Your task to perform on an android device: turn off smart reply in the gmail app Image 0: 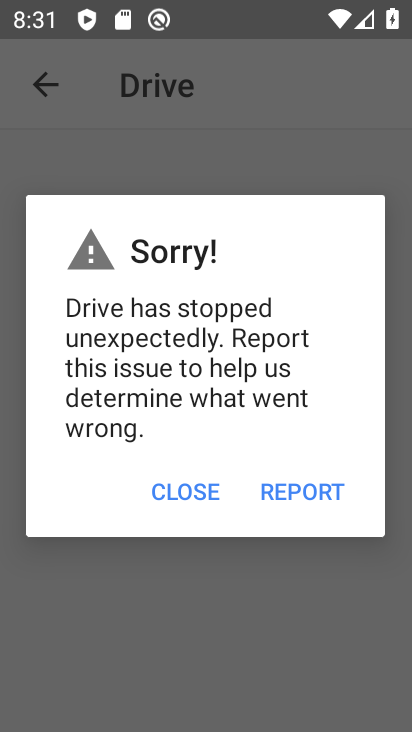
Step 0: press home button
Your task to perform on an android device: turn off smart reply in the gmail app Image 1: 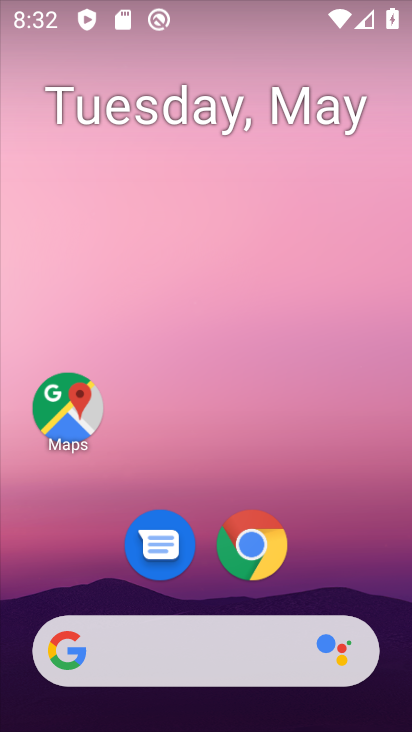
Step 1: drag from (376, 533) to (366, 200)
Your task to perform on an android device: turn off smart reply in the gmail app Image 2: 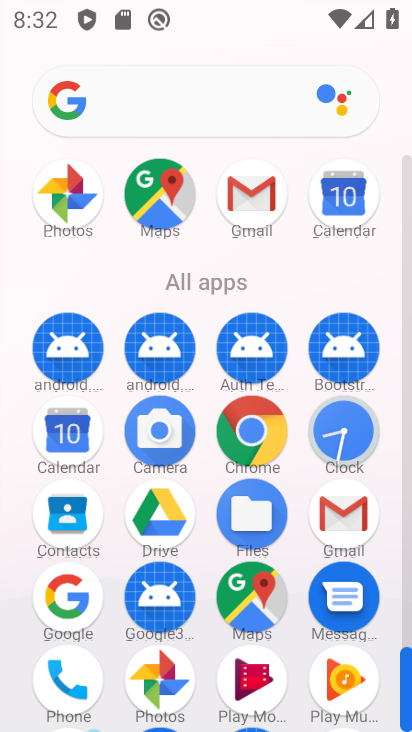
Step 2: click (351, 525)
Your task to perform on an android device: turn off smart reply in the gmail app Image 3: 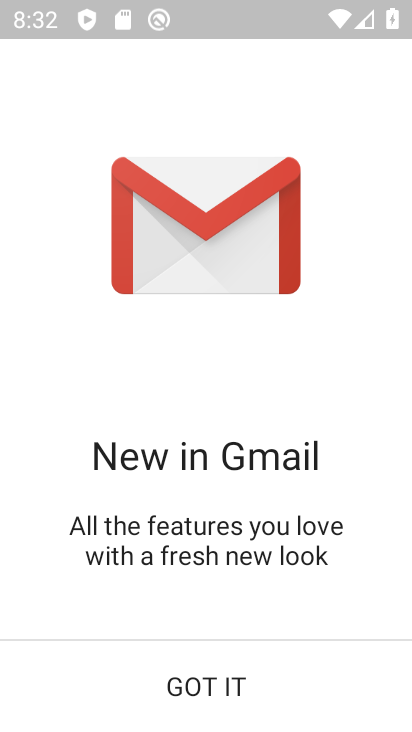
Step 3: click (208, 700)
Your task to perform on an android device: turn off smart reply in the gmail app Image 4: 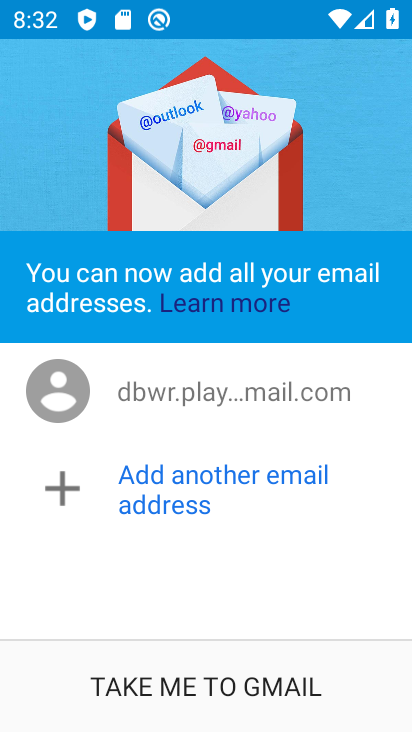
Step 4: click (210, 694)
Your task to perform on an android device: turn off smart reply in the gmail app Image 5: 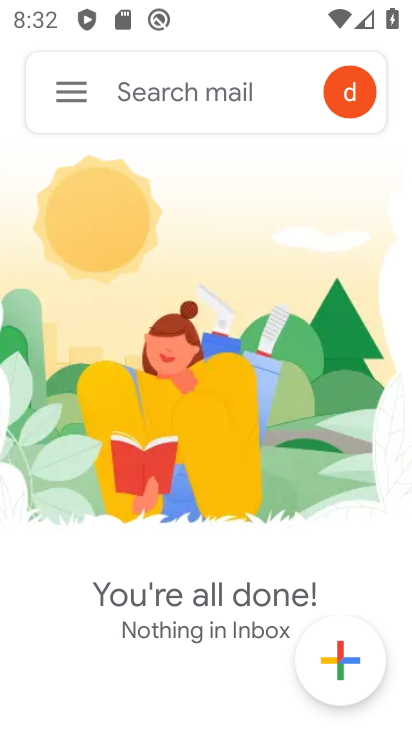
Step 5: click (90, 88)
Your task to perform on an android device: turn off smart reply in the gmail app Image 6: 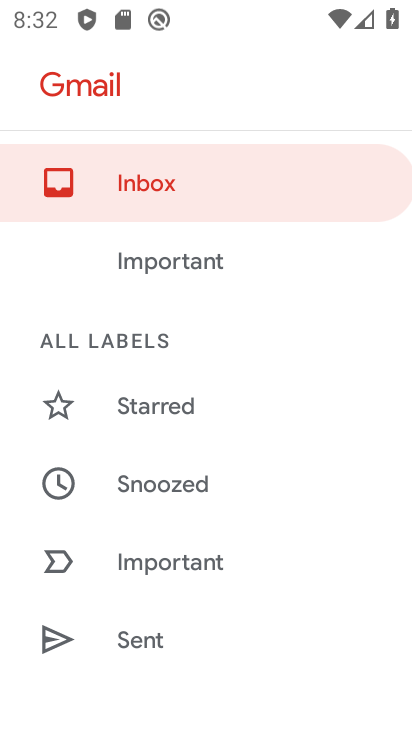
Step 6: drag from (228, 653) to (233, 233)
Your task to perform on an android device: turn off smart reply in the gmail app Image 7: 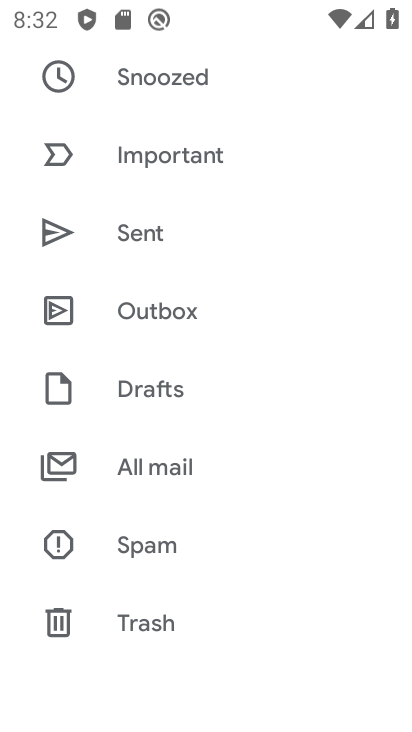
Step 7: drag from (243, 613) to (264, 247)
Your task to perform on an android device: turn off smart reply in the gmail app Image 8: 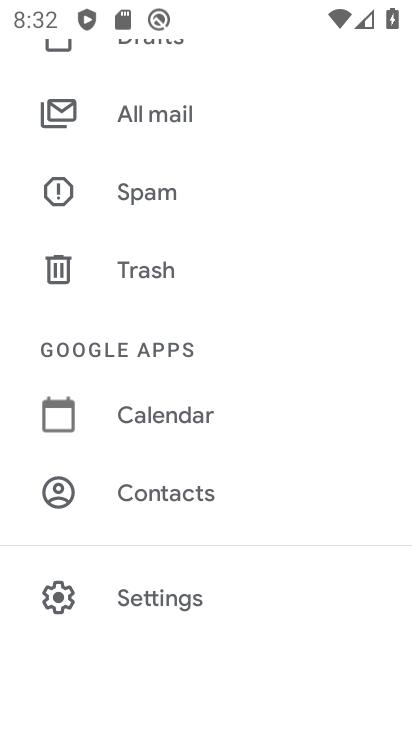
Step 8: click (173, 594)
Your task to perform on an android device: turn off smart reply in the gmail app Image 9: 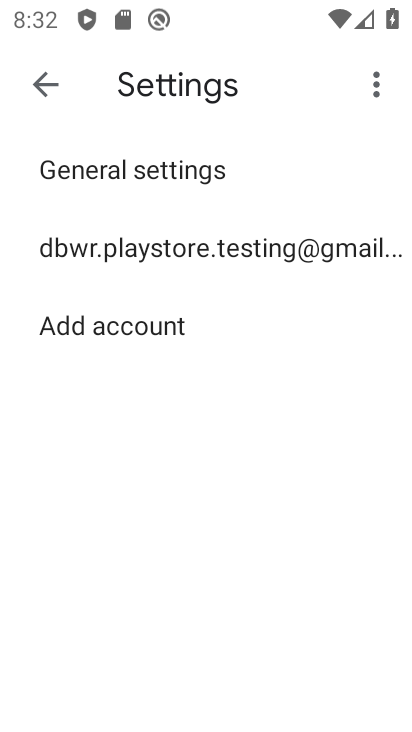
Step 9: click (250, 236)
Your task to perform on an android device: turn off smart reply in the gmail app Image 10: 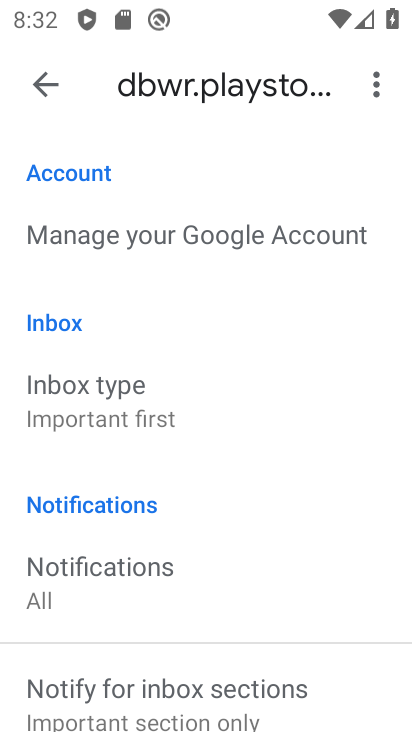
Step 10: drag from (238, 618) to (266, 225)
Your task to perform on an android device: turn off smart reply in the gmail app Image 11: 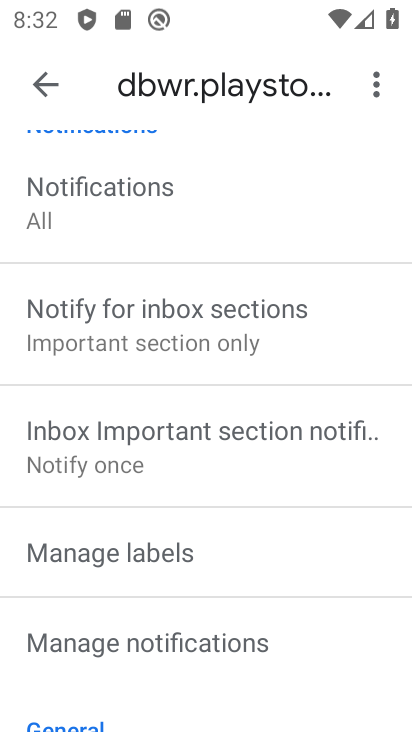
Step 11: drag from (284, 619) to (275, 217)
Your task to perform on an android device: turn off smart reply in the gmail app Image 12: 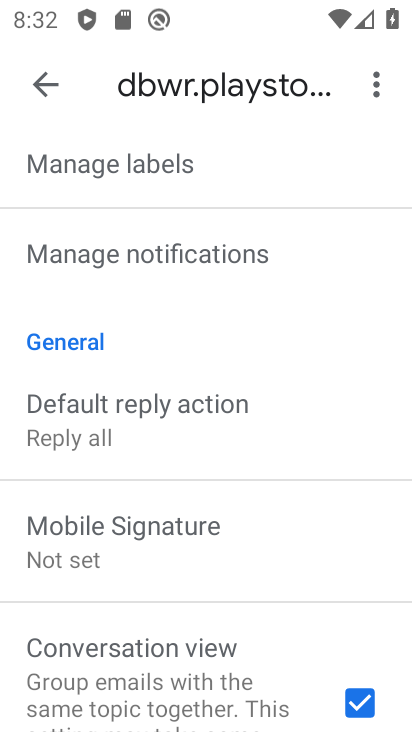
Step 12: drag from (286, 597) to (275, 243)
Your task to perform on an android device: turn off smart reply in the gmail app Image 13: 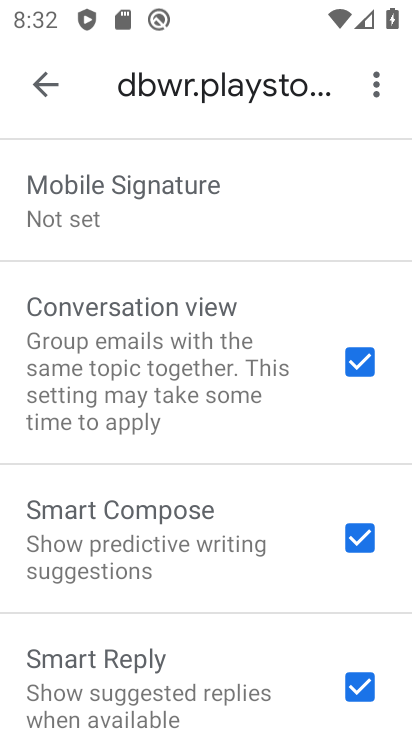
Step 13: drag from (237, 631) to (226, 278)
Your task to perform on an android device: turn off smart reply in the gmail app Image 14: 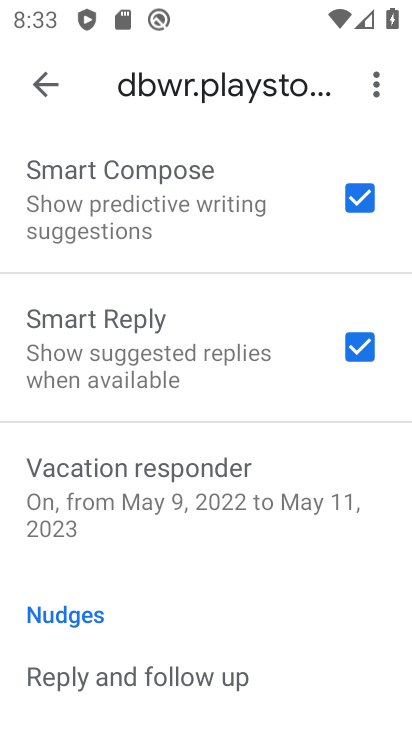
Step 14: click (361, 349)
Your task to perform on an android device: turn off smart reply in the gmail app Image 15: 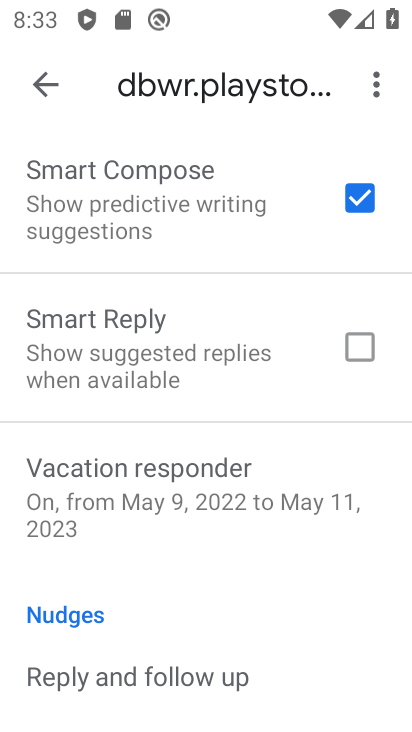
Step 15: task complete